Your task to perform on an android device: toggle sleep mode Image 0: 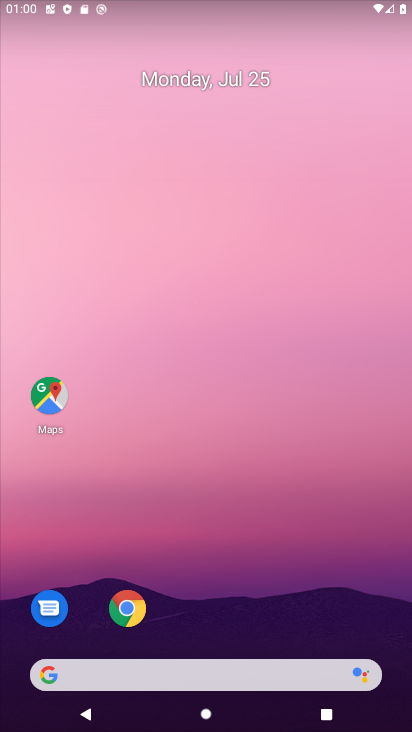
Step 0: drag from (219, 638) to (174, 36)
Your task to perform on an android device: toggle sleep mode Image 1: 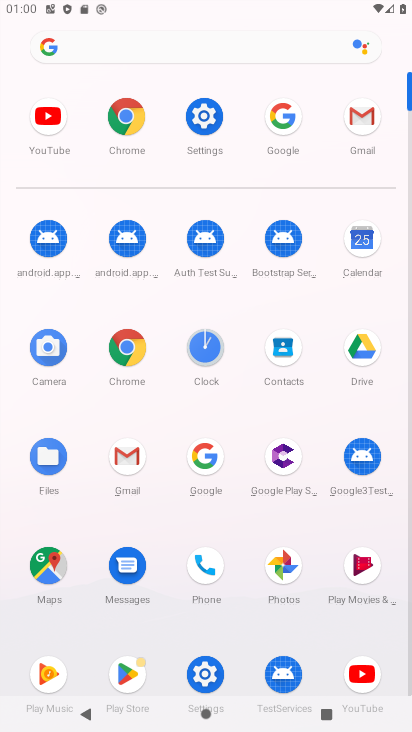
Step 1: click (196, 128)
Your task to perform on an android device: toggle sleep mode Image 2: 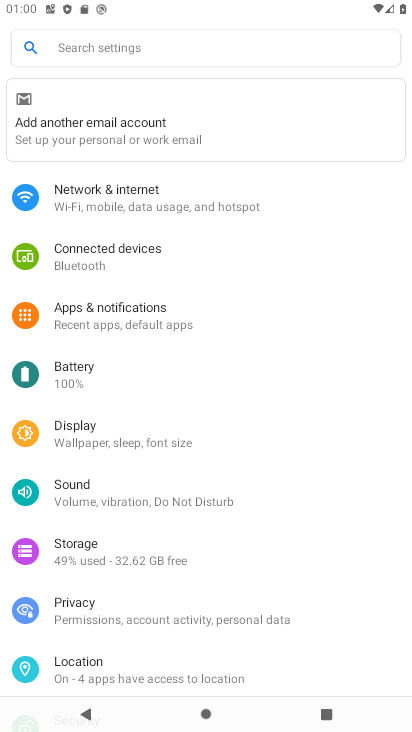
Step 2: click (100, 438)
Your task to perform on an android device: toggle sleep mode Image 3: 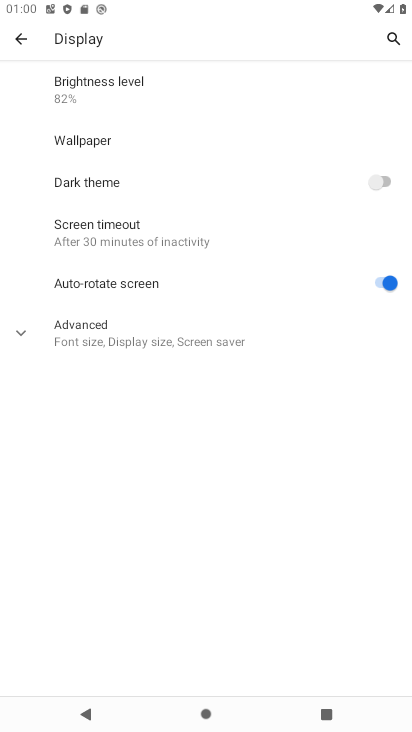
Step 3: click (127, 324)
Your task to perform on an android device: toggle sleep mode Image 4: 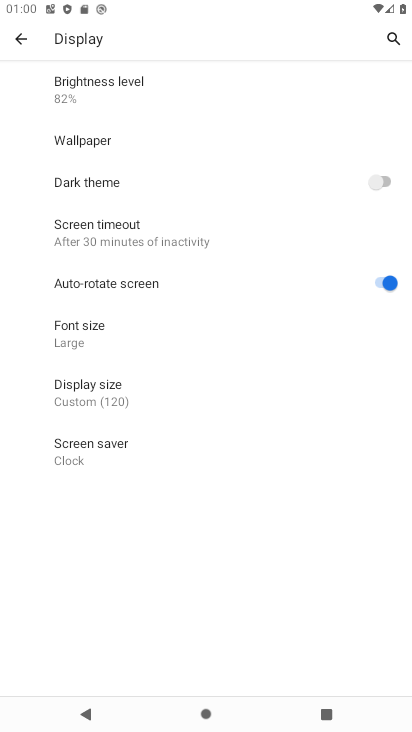
Step 4: task complete